Your task to perform on an android device: open wifi settings Image 0: 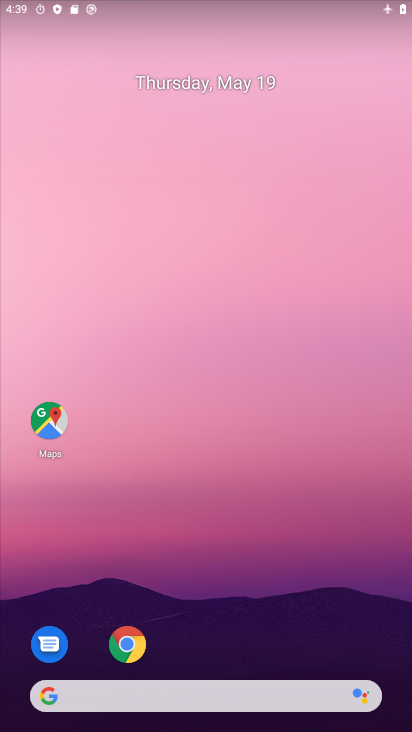
Step 0: drag from (197, 663) to (207, 301)
Your task to perform on an android device: open wifi settings Image 1: 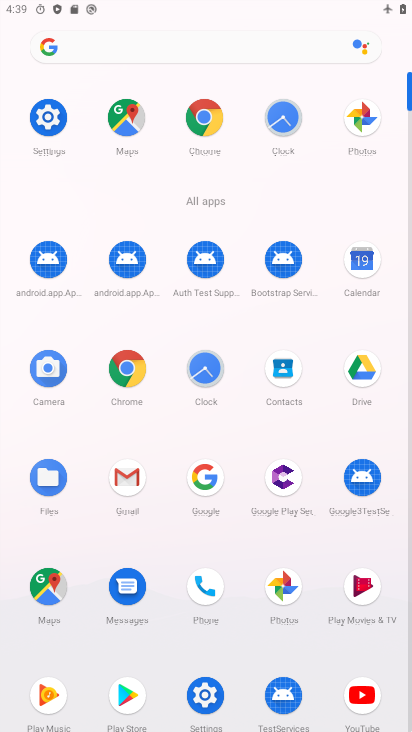
Step 1: click (43, 120)
Your task to perform on an android device: open wifi settings Image 2: 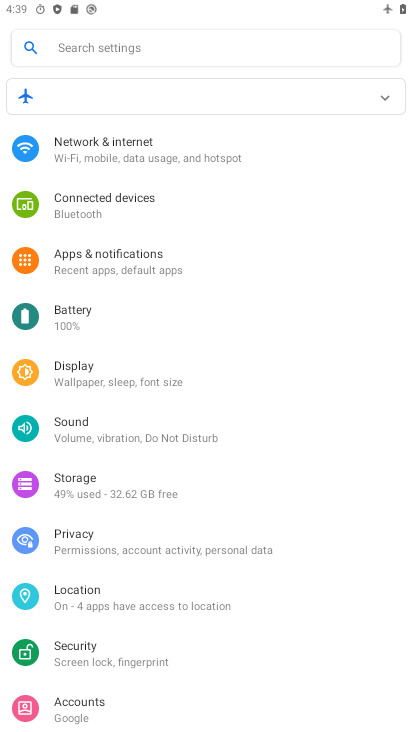
Step 2: click (81, 156)
Your task to perform on an android device: open wifi settings Image 3: 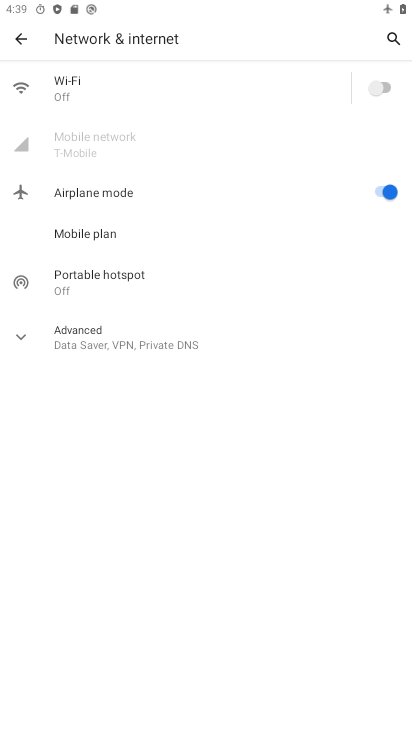
Step 3: click (78, 85)
Your task to perform on an android device: open wifi settings Image 4: 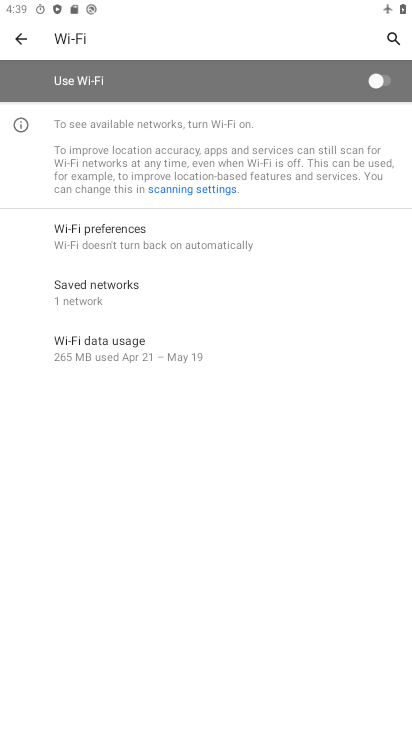
Step 4: click (378, 82)
Your task to perform on an android device: open wifi settings Image 5: 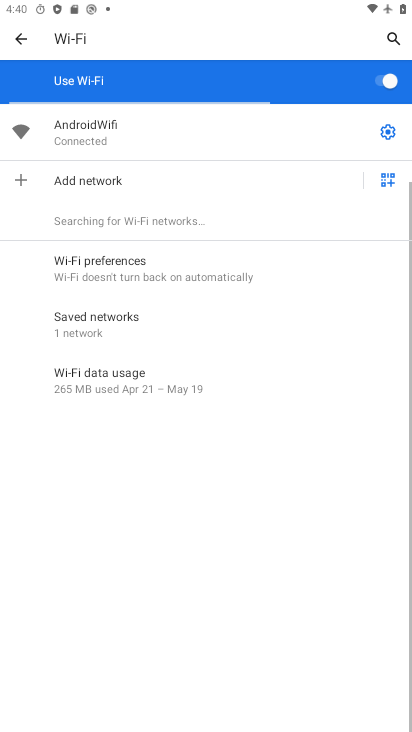
Step 5: click (388, 138)
Your task to perform on an android device: open wifi settings Image 6: 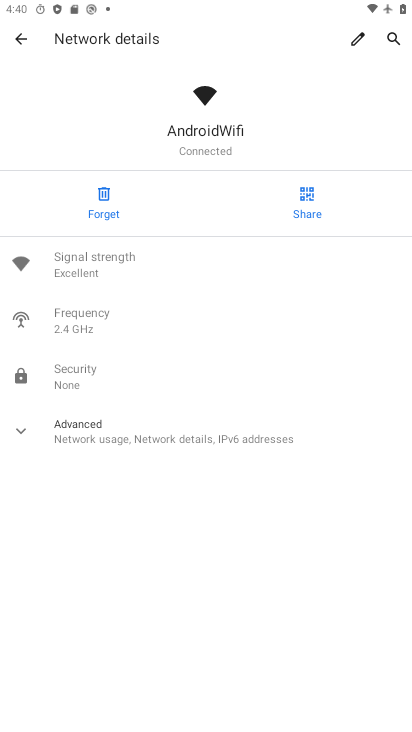
Step 6: click (91, 427)
Your task to perform on an android device: open wifi settings Image 7: 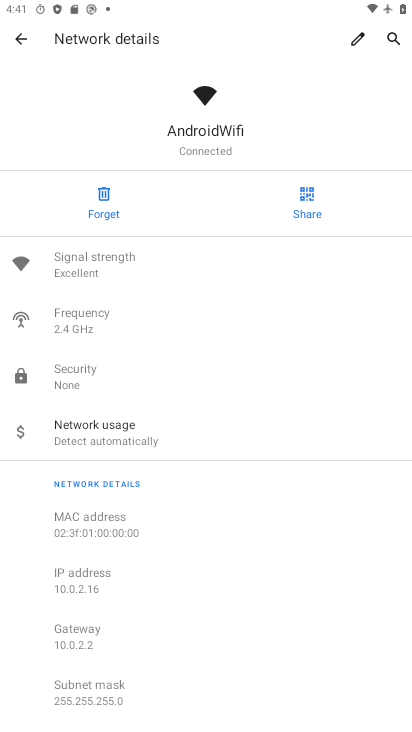
Step 7: task complete